Your task to perform on an android device: turn pop-ups on in chrome Image 0: 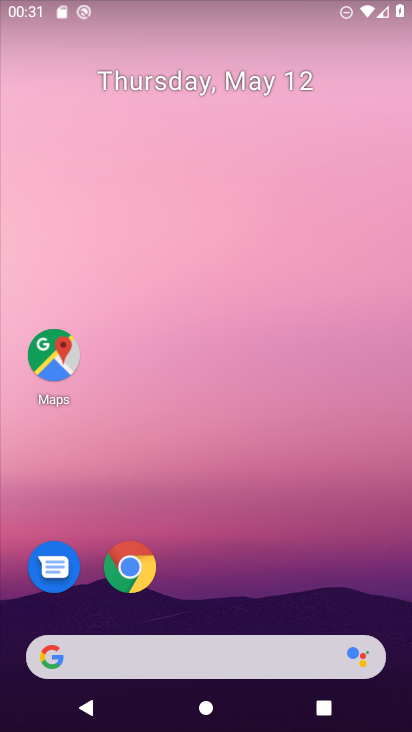
Step 0: click (129, 559)
Your task to perform on an android device: turn pop-ups on in chrome Image 1: 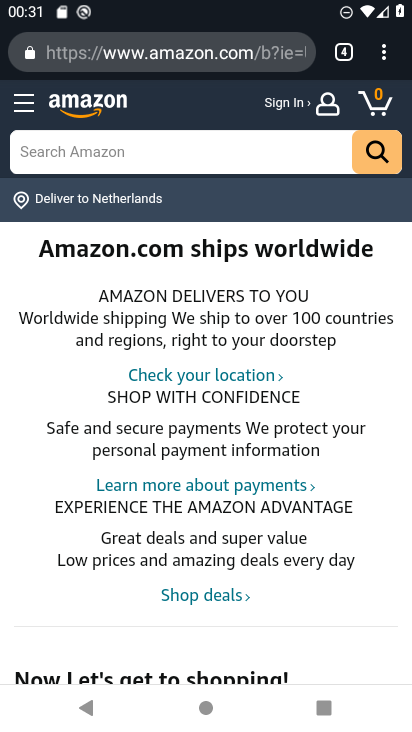
Step 1: click (383, 51)
Your task to perform on an android device: turn pop-ups on in chrome Image 2: 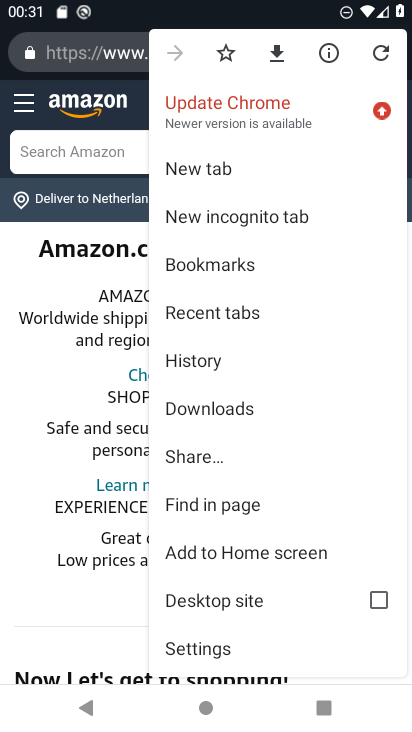
Step 2: click (173, 644)
Your task to perform on an android device: turn pop-ups on in chrome Image 3: 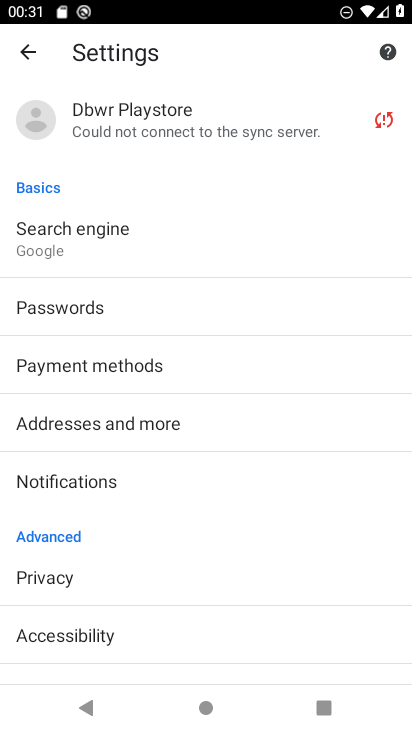
Step 3: drag from (334, 538) to (168, 0)
Your task to perform on an android device: turn pop-ups on in chrome Image 4: 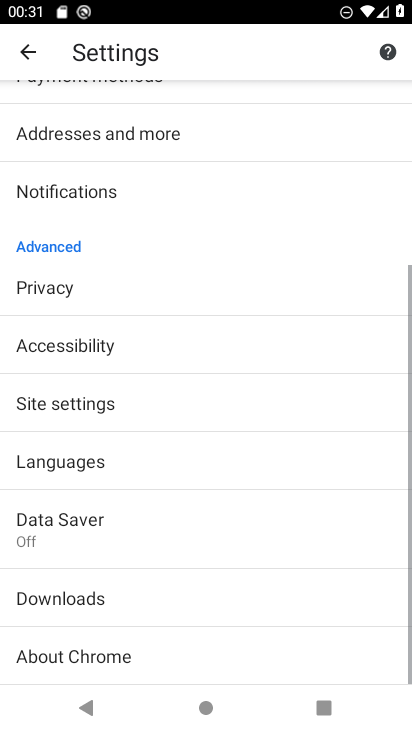
Step 4: click (127, 386)
Your task to perform on an android device: turn pop-ups on in chrome Image 5: 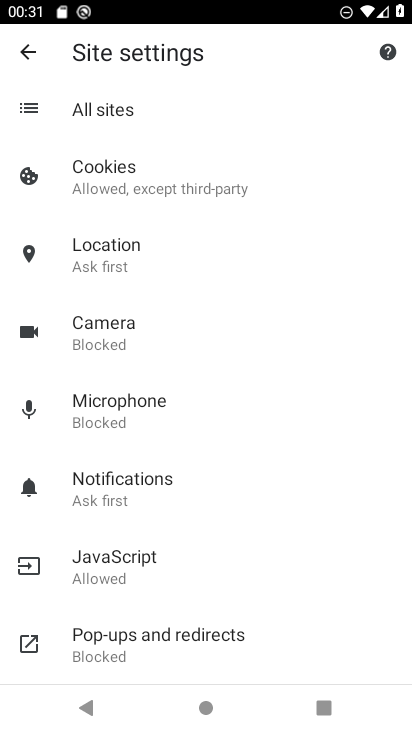
Step 5: click (144, 630)
Your task to perform on an android device: turn pop-ups on in chrome Image 6: 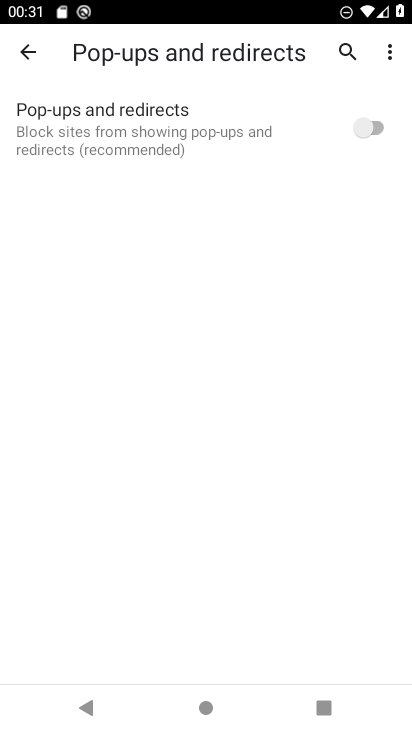
Step 6: click (352, 129)
Your task to perform on an android device: turn pop-ups on in chrome Image 7: 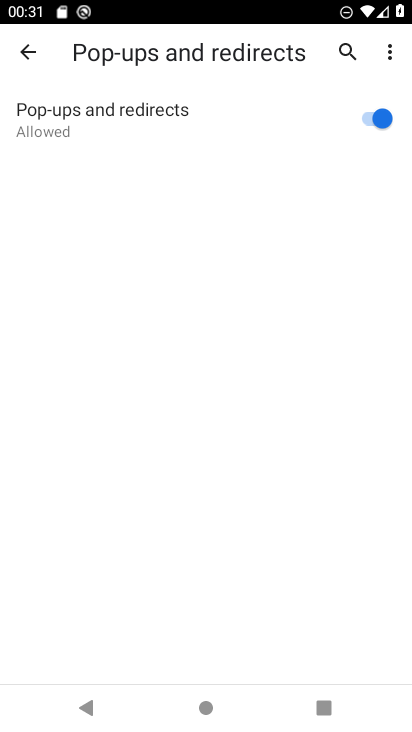
Step 7: task complete